Your task to perform on an android device: Find coffee shops on Maps Image 0: 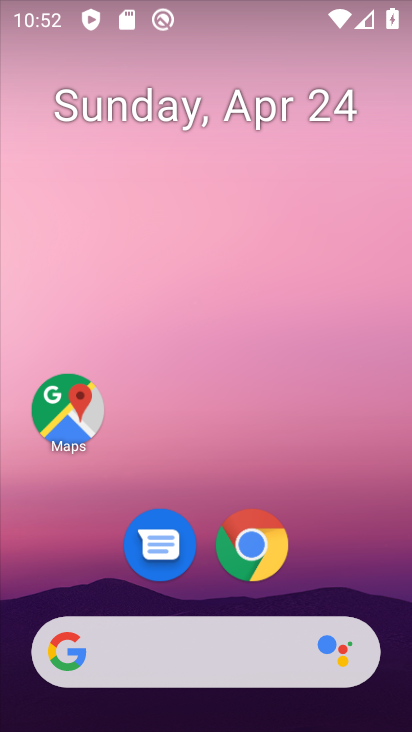
Step 0: press home button
Your task to perform on an android device: Find coffee shops on Maps Image 1: 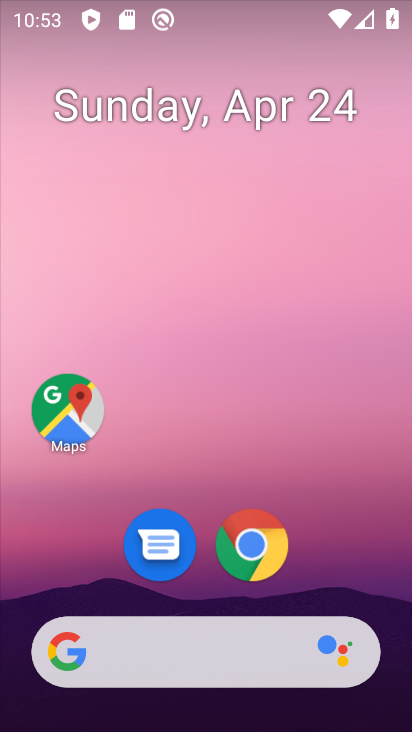
Step 1: drag from (300, 693) to (299, 147)
Your task to perform on an android device: Find coffee shops on Maps Image 2: 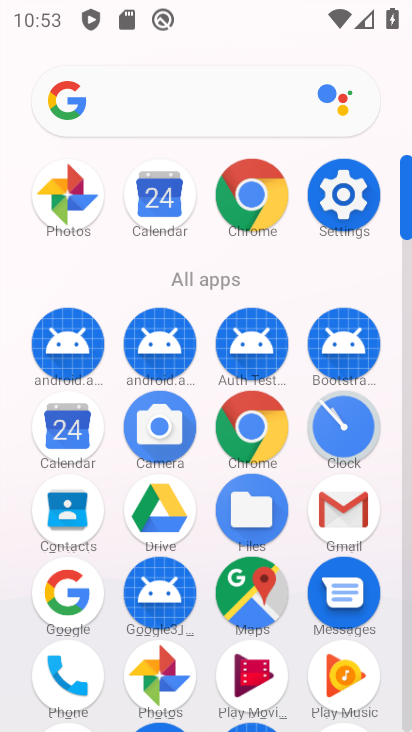
Step 2: click (245, 591)
Your task to perform on an android device: Find coffee shops on Maps Image 3: 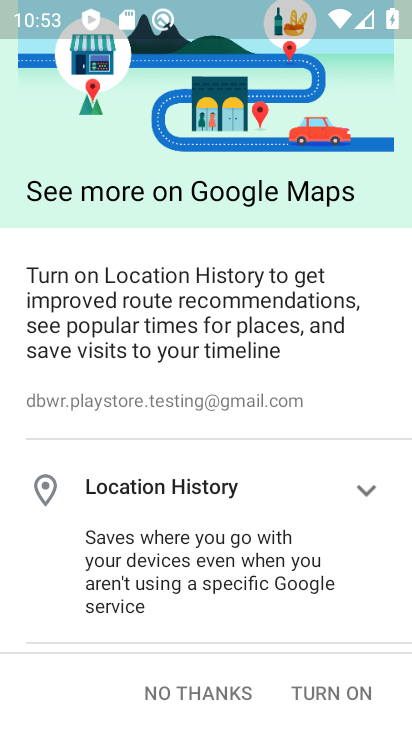
Step 3: click (183, 700)
Your task to perform on an android device: Find coffee shops on Maps Image 4: 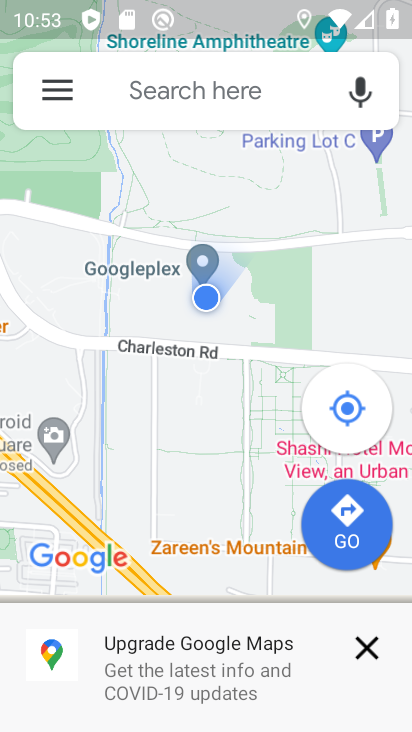
Step 4: click (378, 652)
Your task to perform on an android device: Find coffee shops on Maps Image 5: 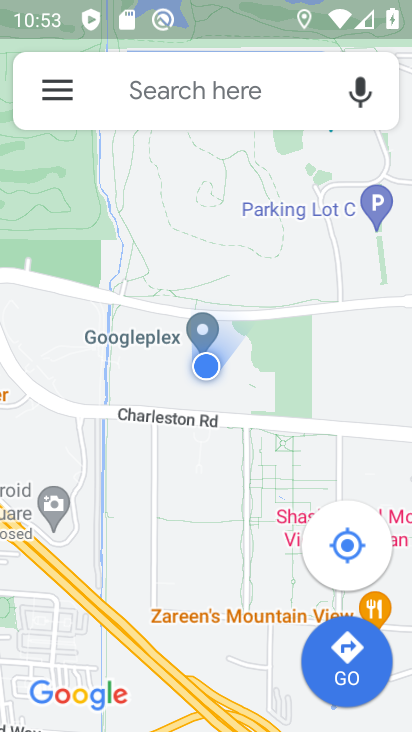
Step 5: click (232, 113)
Your task to perform on an android device: Find coffee shops on Maps Image 6: 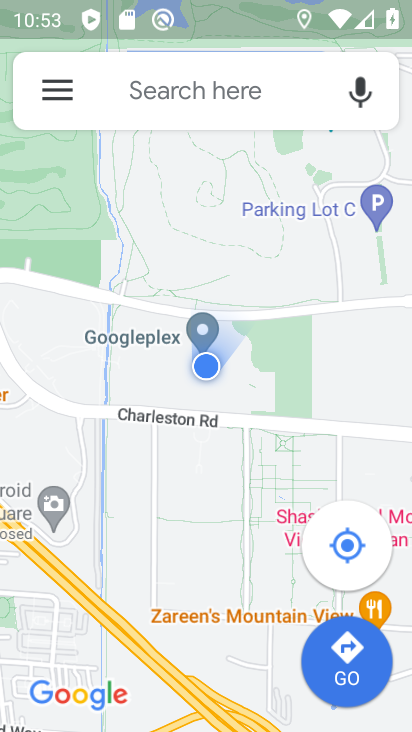
Step 6: click (230, 91)
Your task to perform on an android device: Find coffee shops on Maps Image 7: 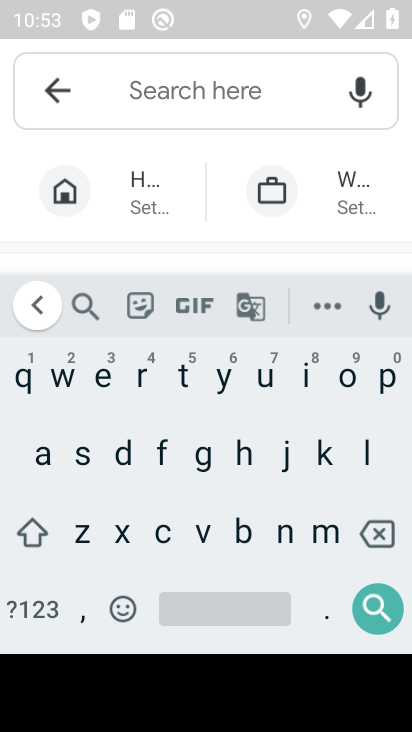
Step 7: click (159, 534)
Your task to perform on an android device: Find coffee shops on Maps Image 8: 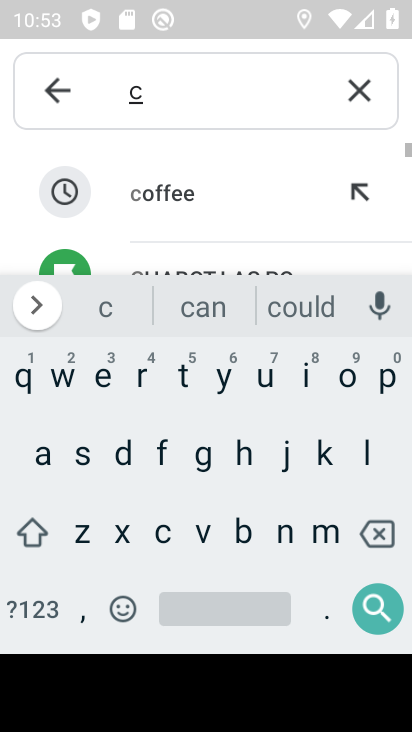
Step 8: click (163, 178)
Your task to perform on an android device: Find coffee shops on Maps Image 9: 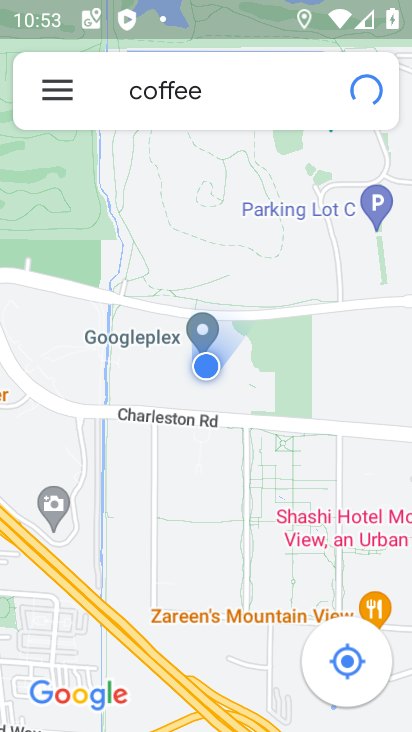
Step 9: task complete